Your task to perform on an android device: toggle data saver in the chrome app Image 0: 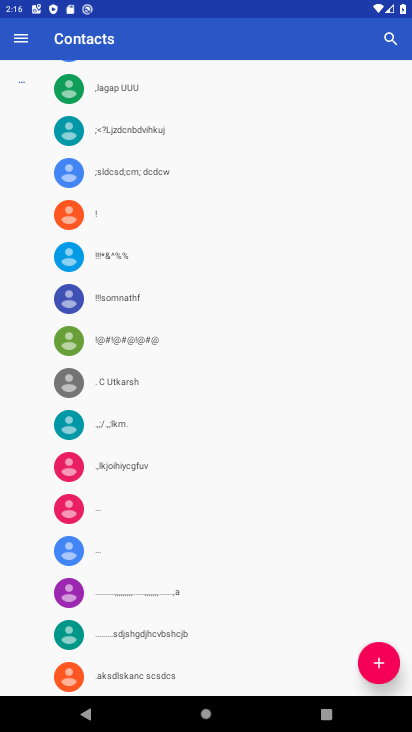
Step 0: press home button
Your task to perform on an android device: toggle data saver in the chrome app Image 1: 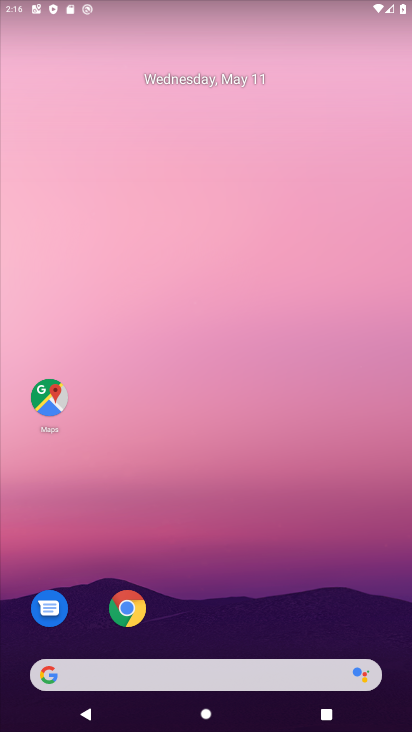
Step 1: click (134, 608)
Your task to perform on an android device: toggle data saver in the chrome app Image 2: 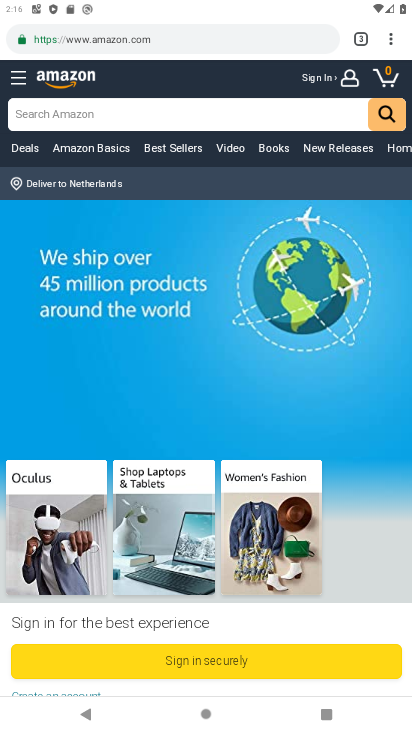
Step 2: click (394, 39)
Your task to perform on an android device: toggle data saver in the chrome app Image 3: 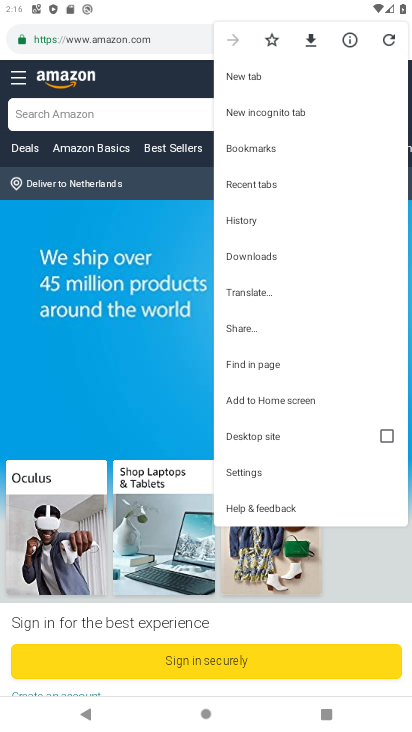
Step 3: click (261, 470)
Your task to perform on an android device: toggle data saver in the chrome app Image 4: 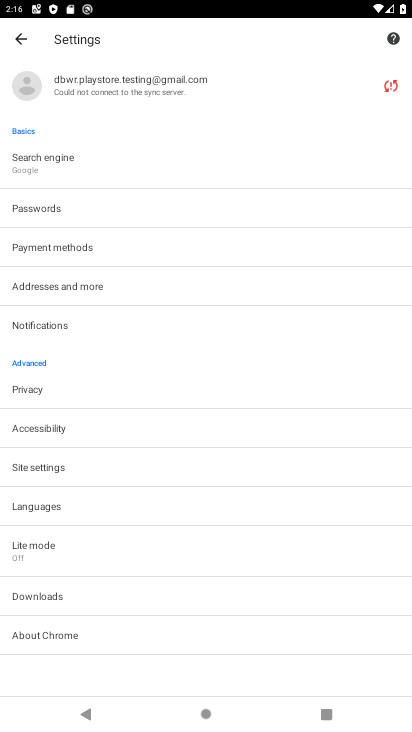
Step 4: click (111, 548)
Your task to perform on an android device: toggle data saver in the chrome app Image 5: 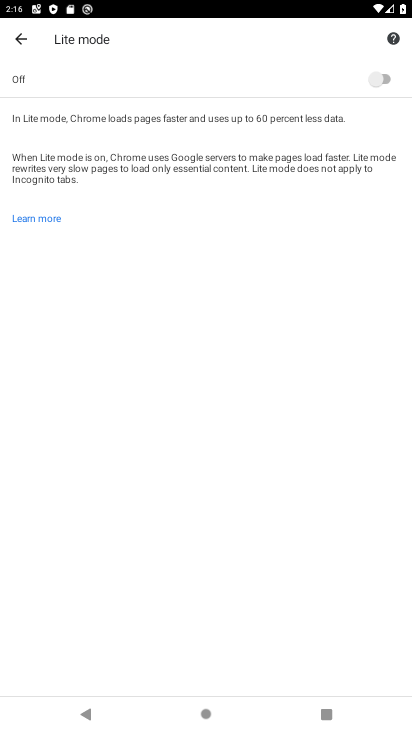
Step 5: click (385, 71)
Your task to perform on an android device: toggle data saver in the chrome app Image 6: 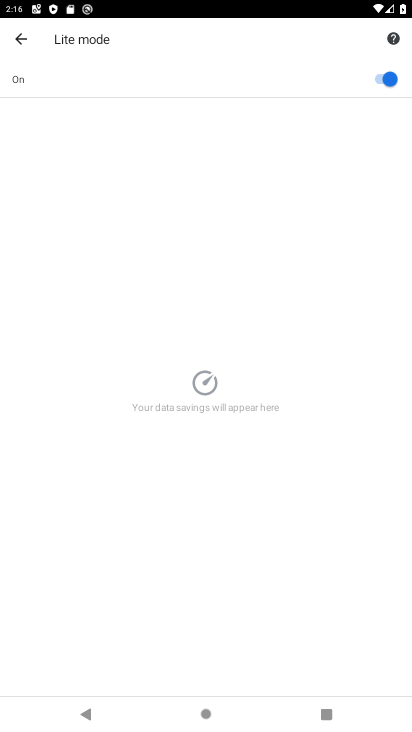
Step 6: task complete